Your task to perform on an android device: What is the news today? Image 0: 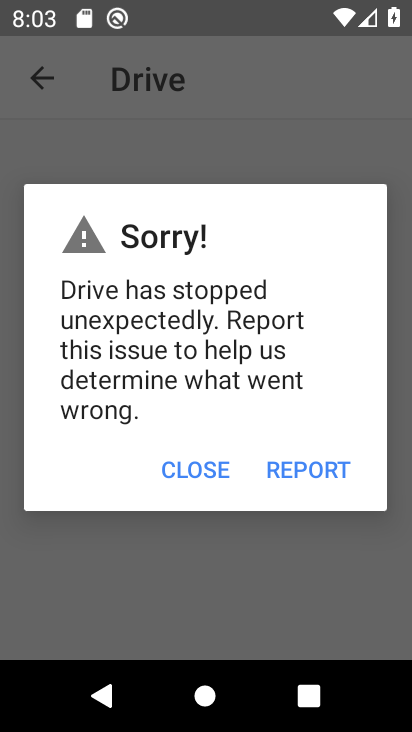
Step 0: drag from (333, 526) to (313, 155)
Your task to perform on an android device: What is the news today? Image 1: 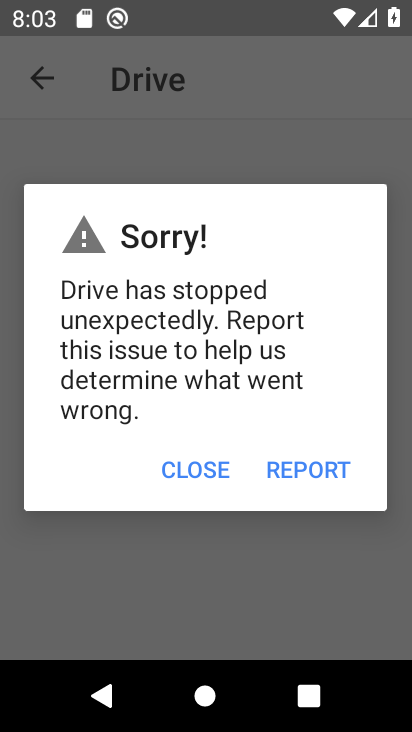
Step 1: press home button
Your task to perform on an android device: What is the news today? Image 2: 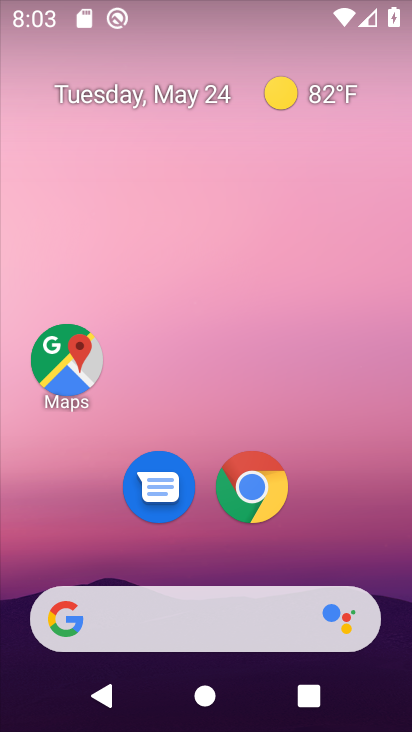
Step 2: drag from (364, 516) to (306, 145)
Your task to perform on an android device: What is the news today? Image 3: 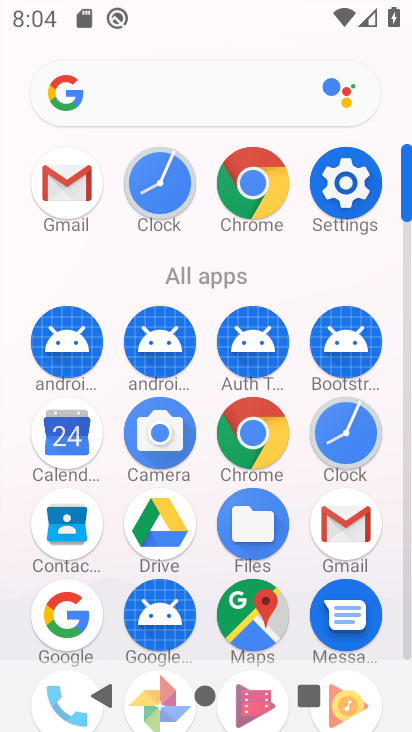
Step 3: click (243, 446)
Your task to perform on an android device: What is the news today? Image 4: 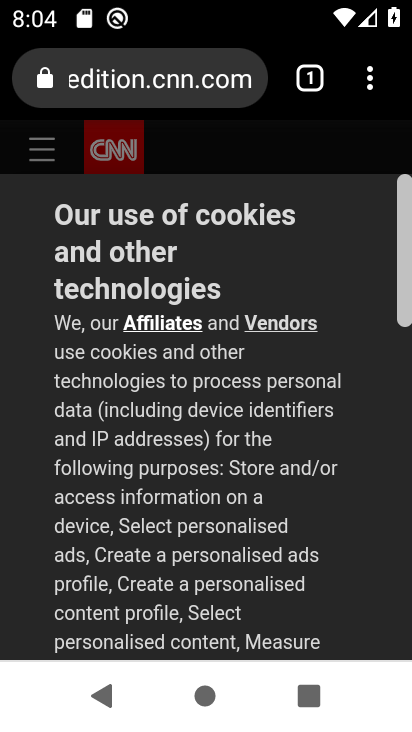
Step 4: click (195, 93)
Your task to perform on an android device: What is the news today? Image 5: 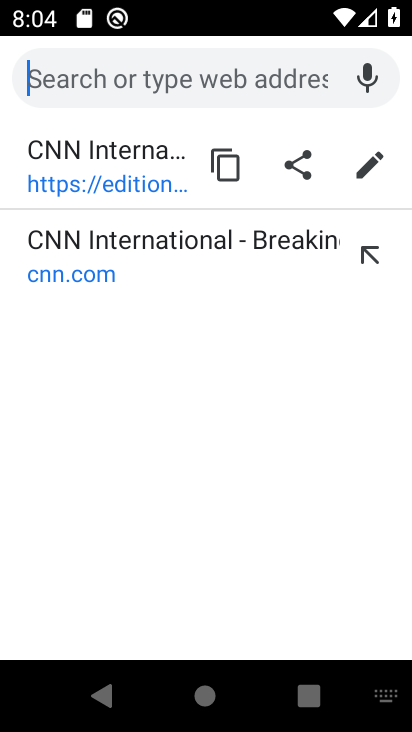
Step 5: type "what is the news today"
Your task to perform on an android device: What is the news today? Image 6: 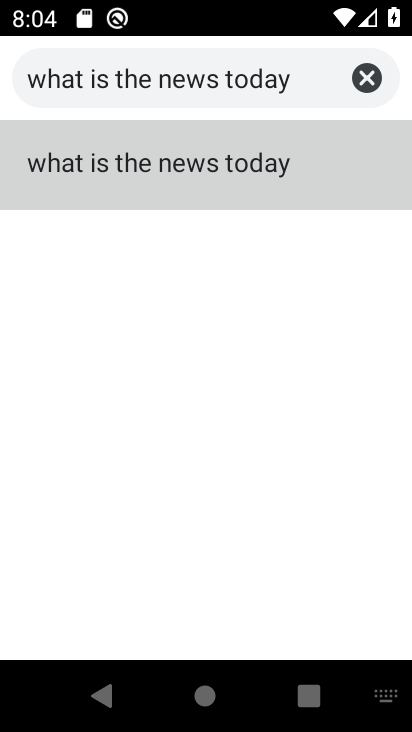
Step 6: click (160, 162)
Your task to perform on an android device: What is the news today? Image 7: 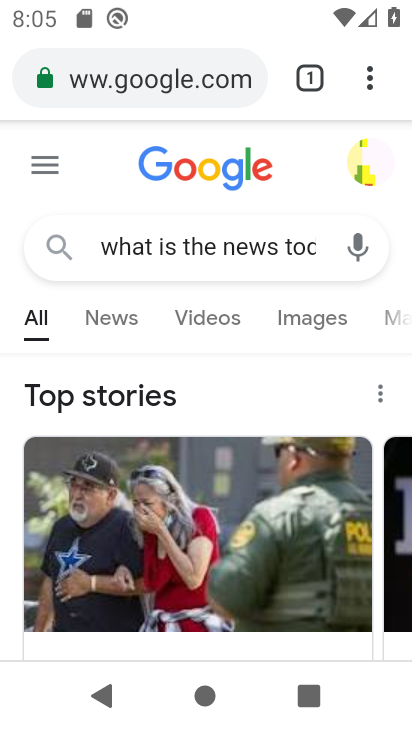
Step 7: task complete